Your task to perform on an android device: open chrome privacy settings Image 0: 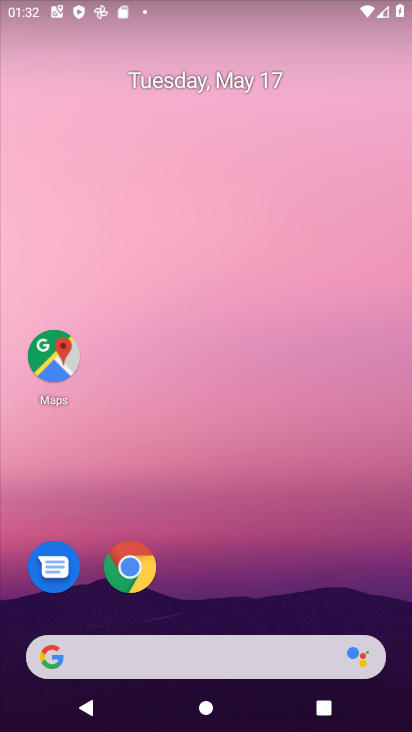
Step 0: click (130, 566)
Your task to perform on an android device: open chrome privacy settings Image 1: 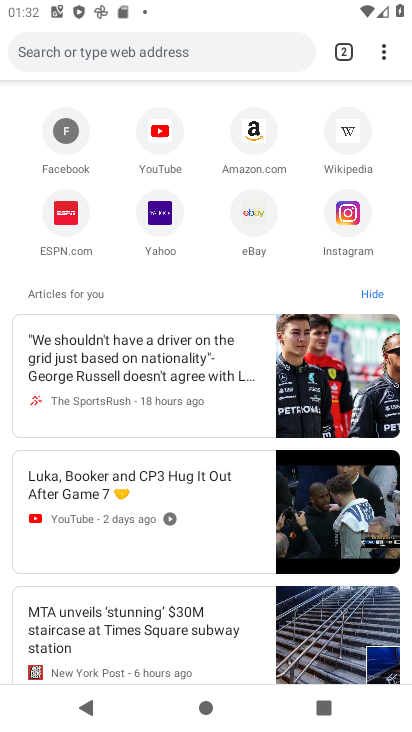
Step 1: click (383, 57)
Your task to perform on an android device: open chrome privacy settings Image 2: 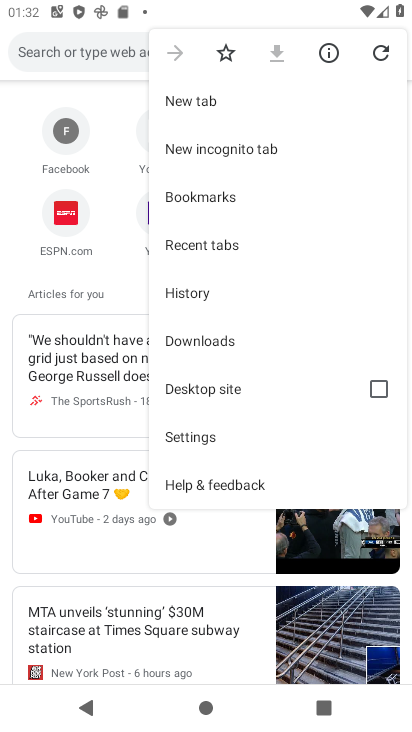
Step 2: click (213, 442)
Your task to perform on an android device: open chrome privacy settings Image 3: 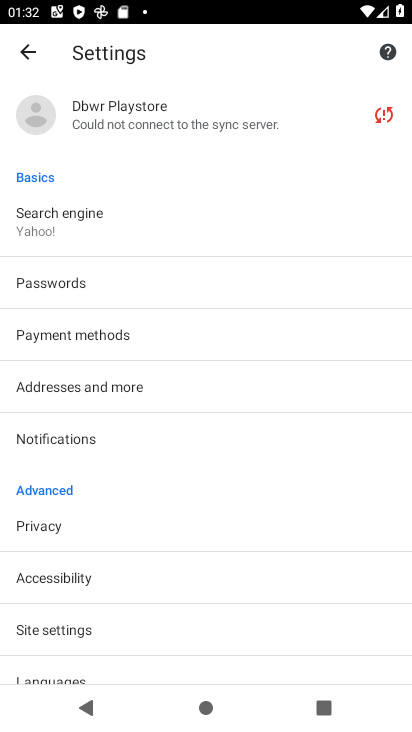
Step 3: click (35, 523)
Your task to perform on an android device: open chrome privacy settings Image 4: 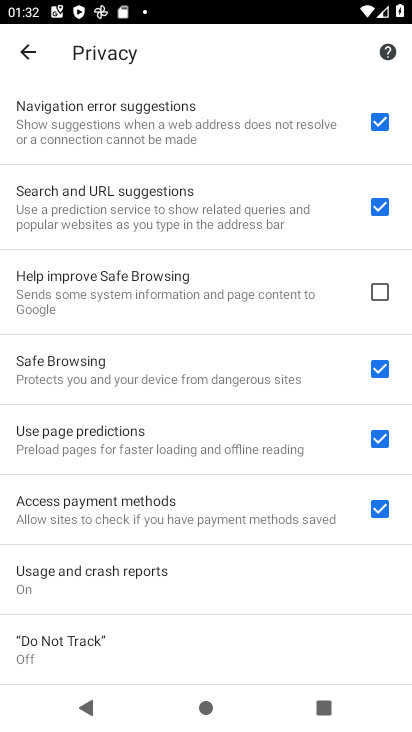
Step 4: task complete